Your task to perform on an android device: add a contact in the contacts app Image 0: 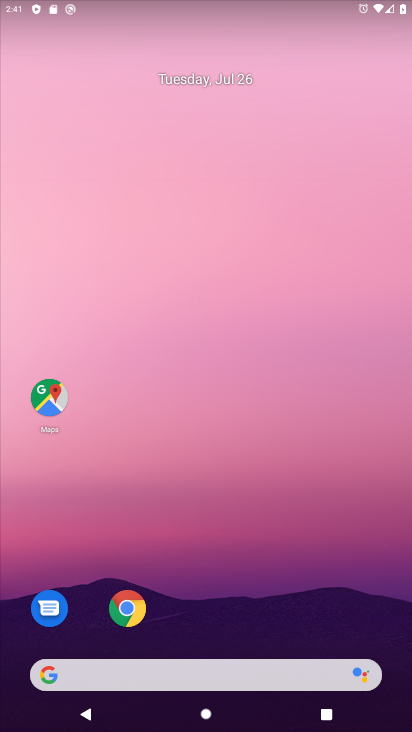
Step 0: drag from (227, 618) to (167, 22)
Your task to perform on an android device: add a contact in the contacts app Image 1: 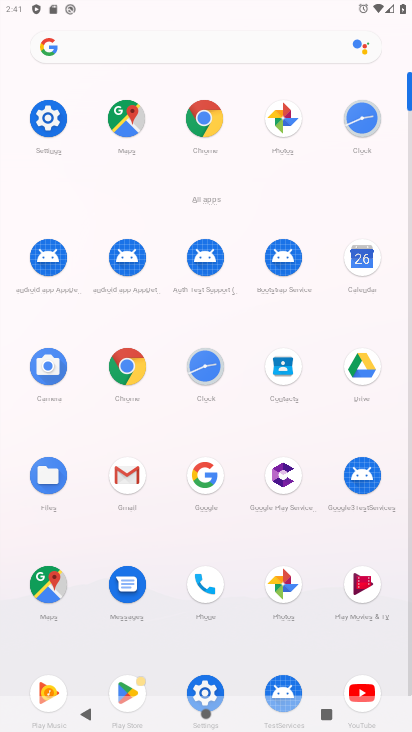
Step 1: click (278, 359)
Your task to perform on an android device: add a contact in the contacts app Image 2: 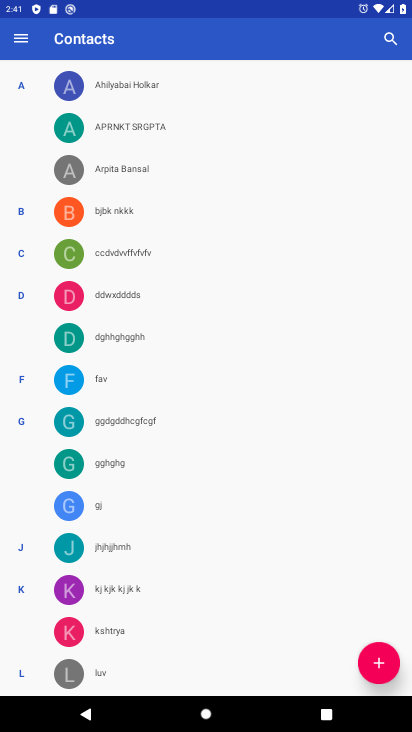
Step 2: click (369, 647)
Your task to perform on an android device: add a contact in the contacts app Image 3: 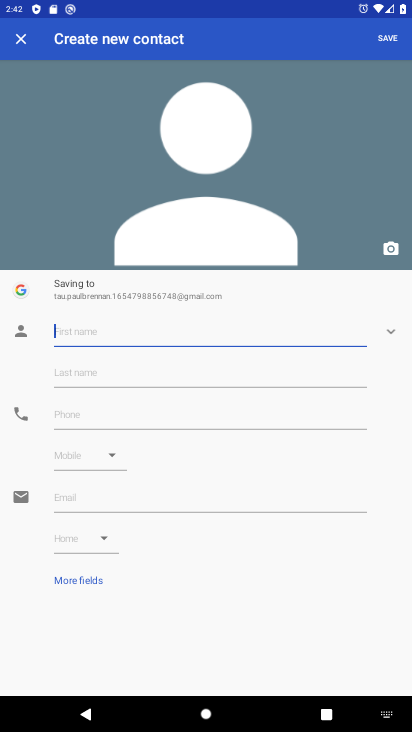
Step 3: type "mnjk"
Your task to perform on an android device: add a contact in the contacts app Image 4: 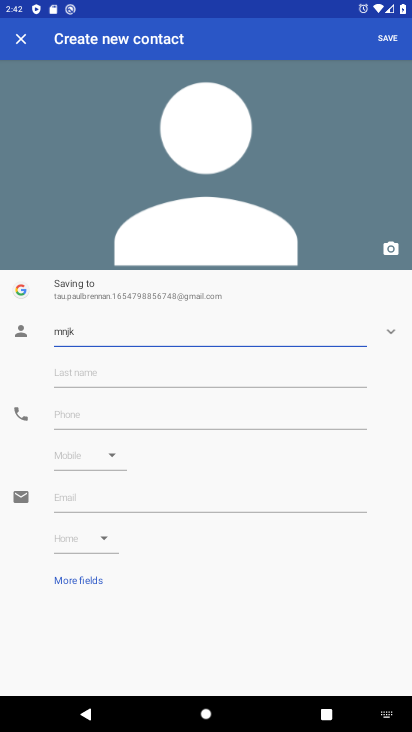
Step 4: click (112, 416)
Your task to perform on an android device: add a contact in the contacts app Image 5: 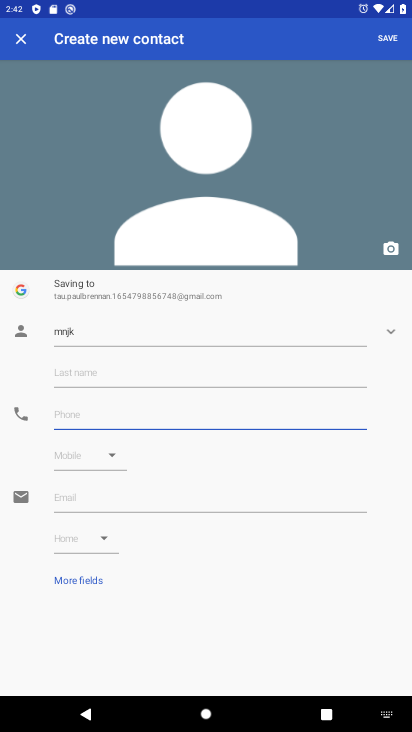
Step 5: type "0989098909"
Your task to perform on an android device: add a contact in the contacts app Image 6: 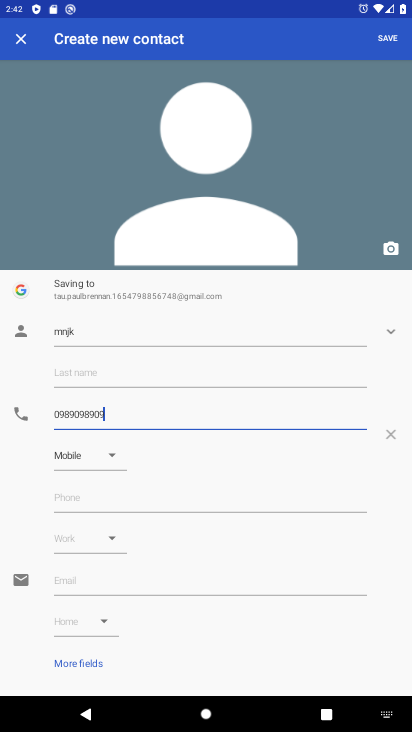
Step 6: click (400, 42)
Your task to perform on an android device: add a contact in the contacts app Image 7: 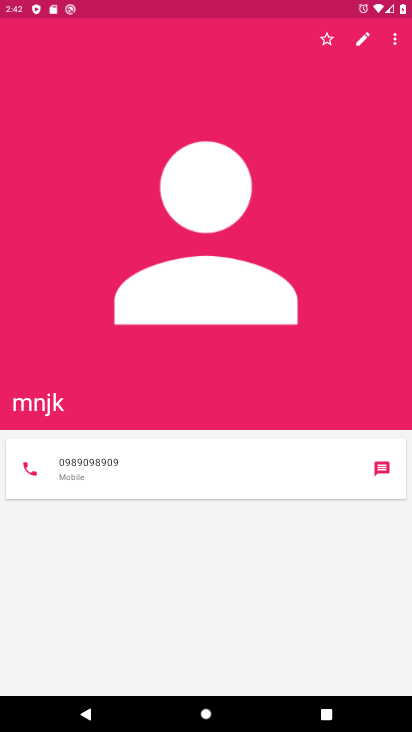
Step 7: task complete